Your task to perform on an android device: Show me productivity apps on the Play Store Image 0: 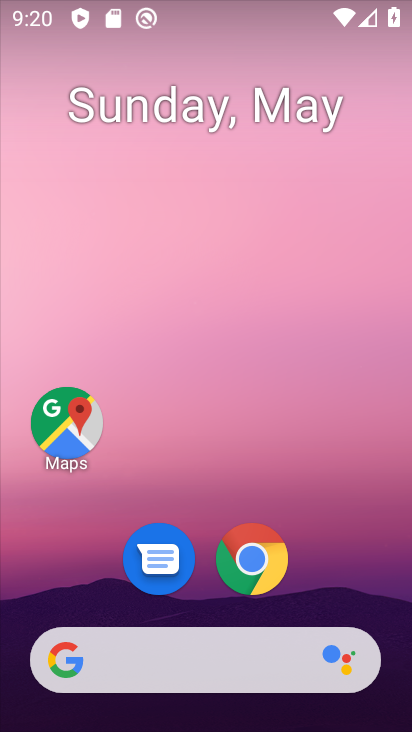
Step 0: drag from (346, 605) to (382, 112)
Your task to perform on an android device: Show me productivity apps on the Play Store Image 1: 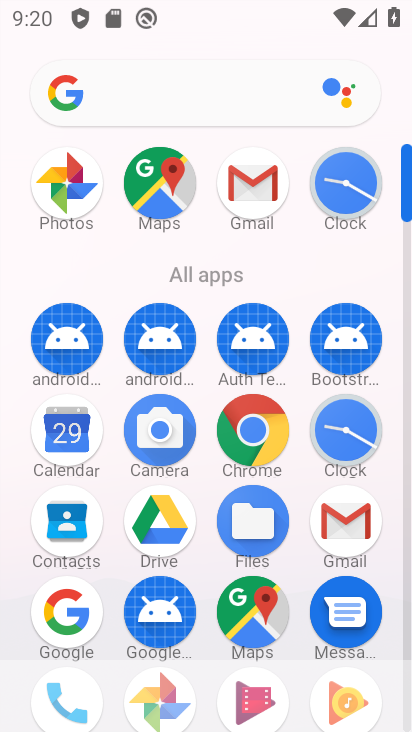
Step 1: drag from (394, 573) to (380, 178)
Your task to perform on an android device: Show me productivity apps on the Play Store Image 2: 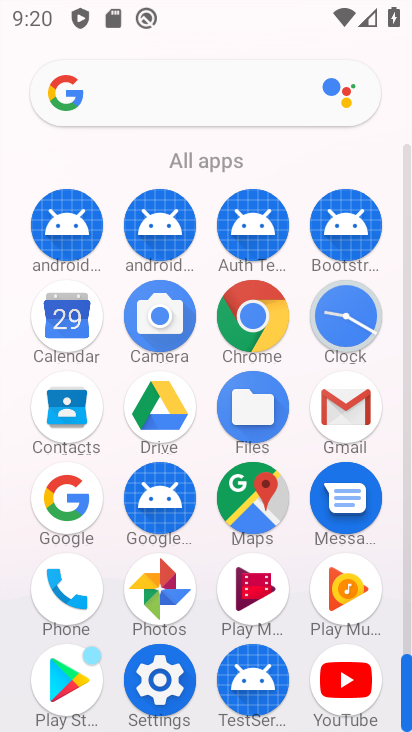
Step 2: click (69, 694)
Your task to perform on an android device: Show me productivity apps on the Play Store Image 3: 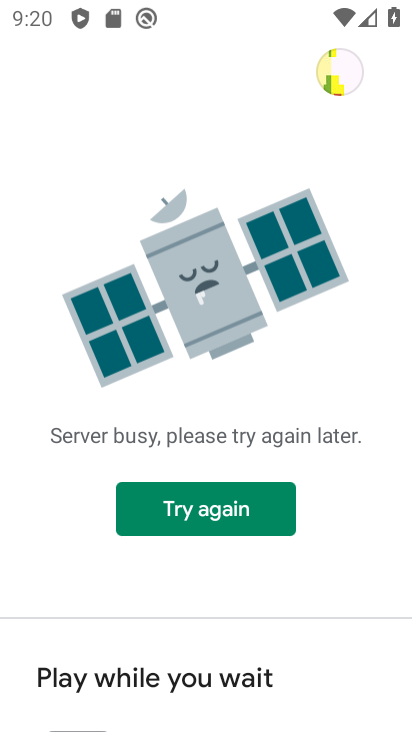
Step 3: click (199, 517)
Your task to perform on an android device: Show me productivity apps on the Play Store Image 4: 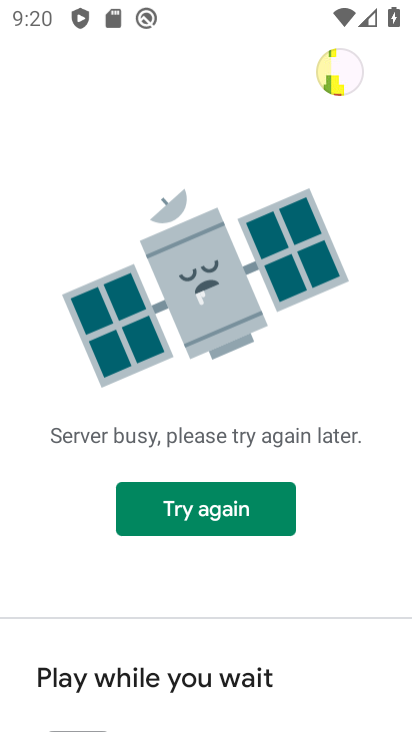
Step 4: click (199, 517)
Your task to perform on an android device: Show me productivity apps on the Play Store Image 5: 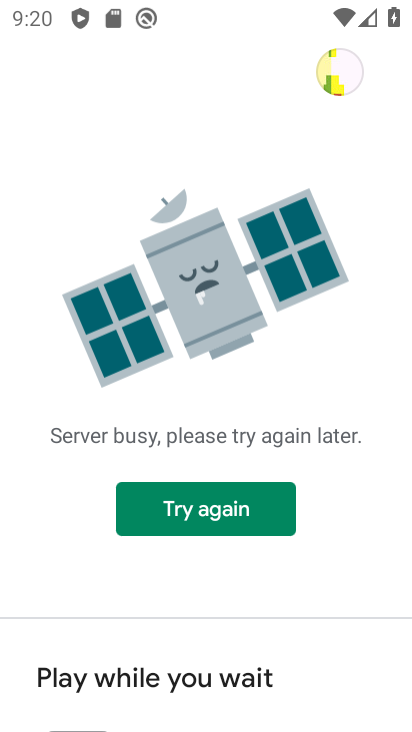
Step 5: click (199, 517)
Your task to perform on an android device: Show me productivity apps on the Play Store Image 6: 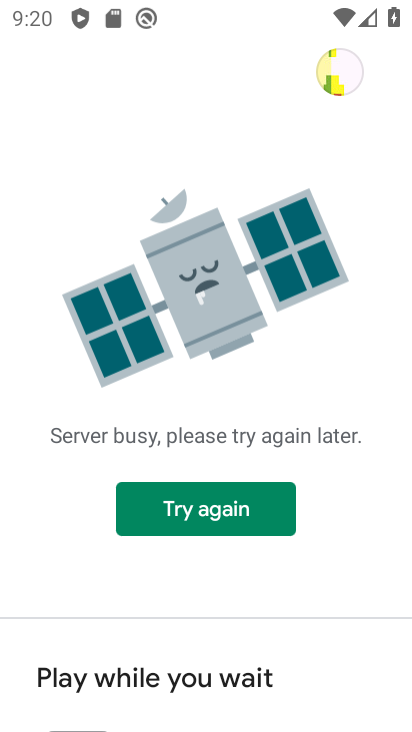
Step 6: click (199, 517)
Your task to perform on an android device: Show me productivity apps on the Play Store Image 7: 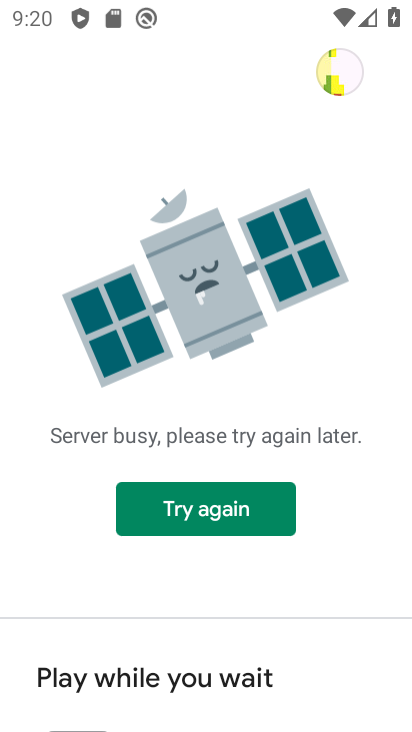
Step 7: click (199, 517)
Your task to perform on an android device: Show me productivity apps on the Play Store Image 8: 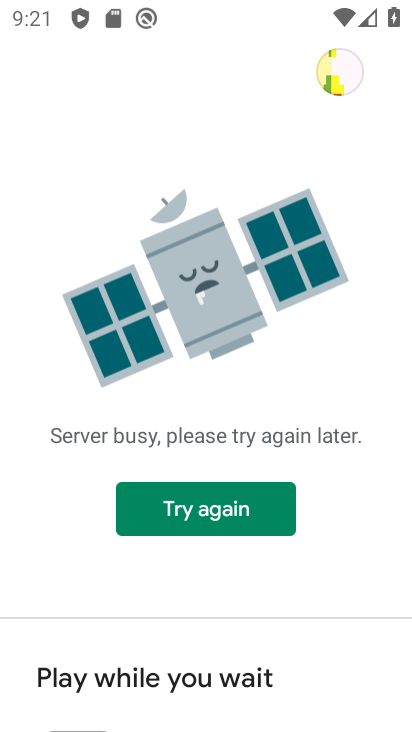
Step 8: task complete